Your task to perform on an android device: What is the recent news? Image 0: 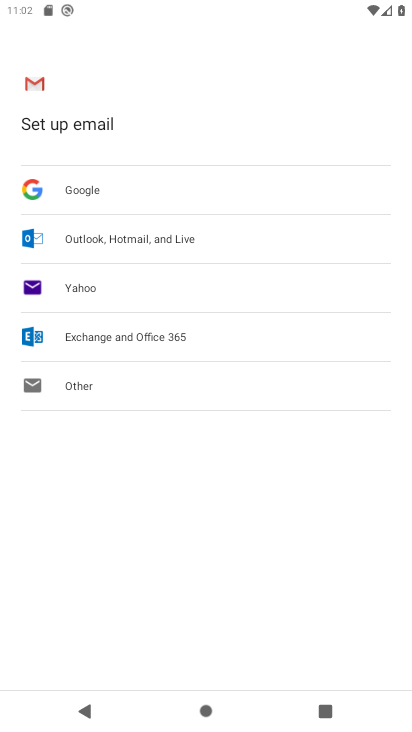
Step 0: press home button
Your task to perform on an android device: What is the recent news? Image 1: 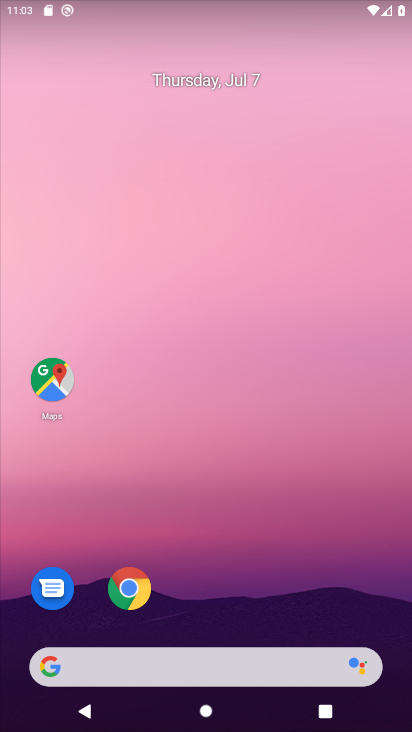
Step 1: click (170, 665)
Your task to perform on an android device: What is the recent news? Image 2: 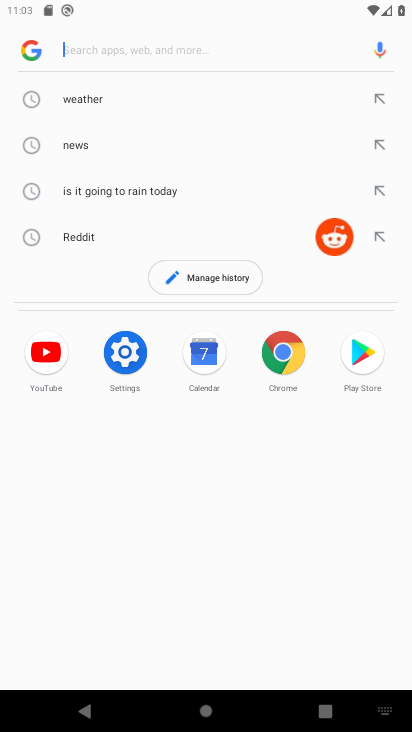
Step 2: click (80, 137)
Your task to perform on an android device: What is the recent news? Image 3: 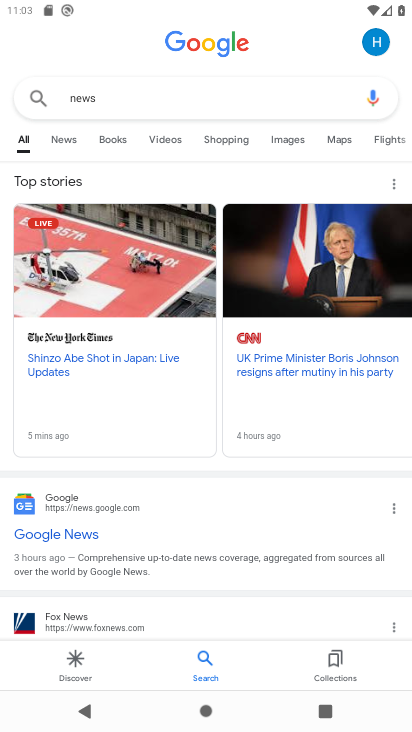
Step 3: task complete